Your task to perform on an android device: find photos in the google photos app Image 0: 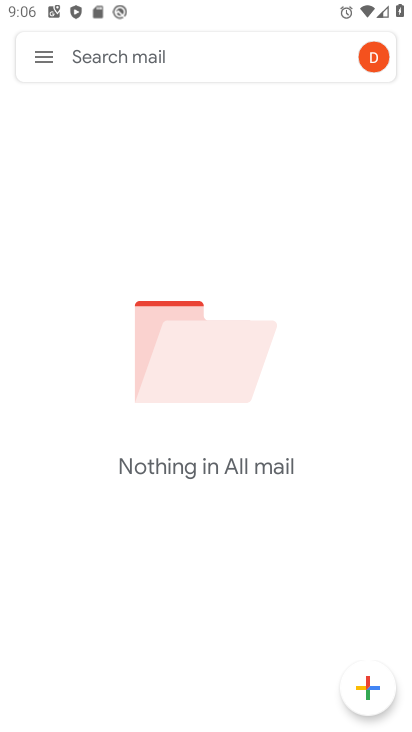
Step 0: press home button
Your task to perform on an android device: find photos in the google photos app Image 1: 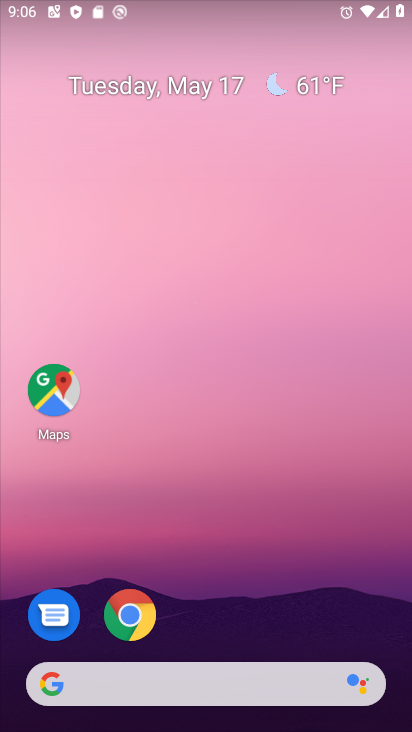
Step 1: drag from (201, 603) to (252, 0)
Your task to perform on an android device: find photos in the google photos app Image 2: 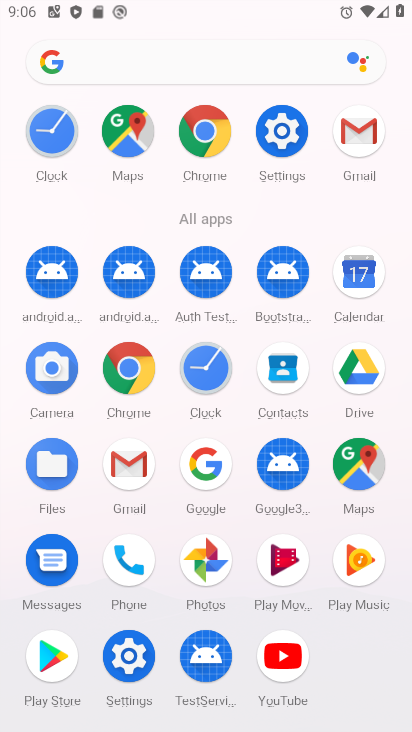
Step 2: click (200, 553)
Your task to perform on an android device: find photos in the google photos app Image 3: 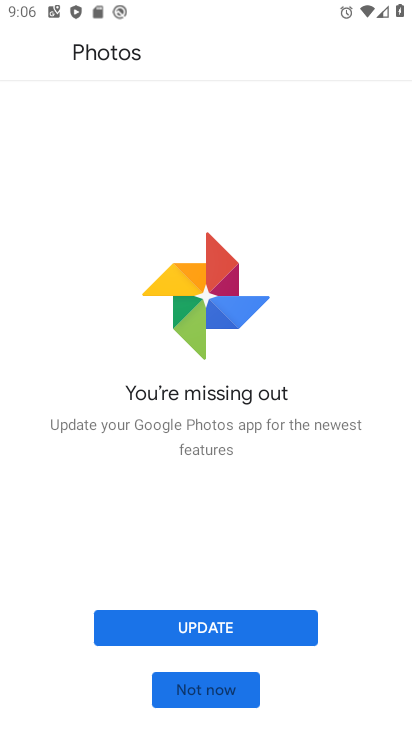
Step 3: click (219, 705)
Your task to perform on an android device: find photos in the google photos app Image 4: 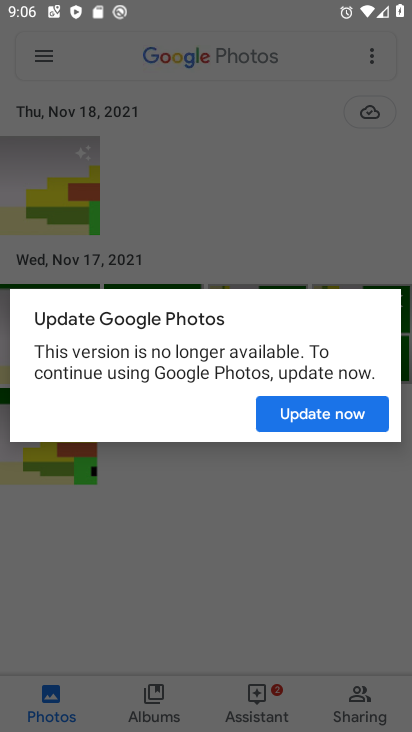
Step 4: click (355, 409)
Your task to perform on an android device: find photos in the google photos app Image 5: 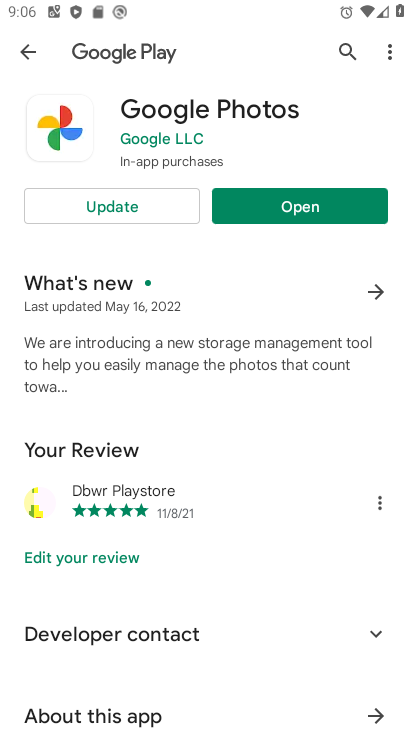
Step 5: click (266, 210)
Your task to perform on an android device: find photos in the google photos app Image 6: 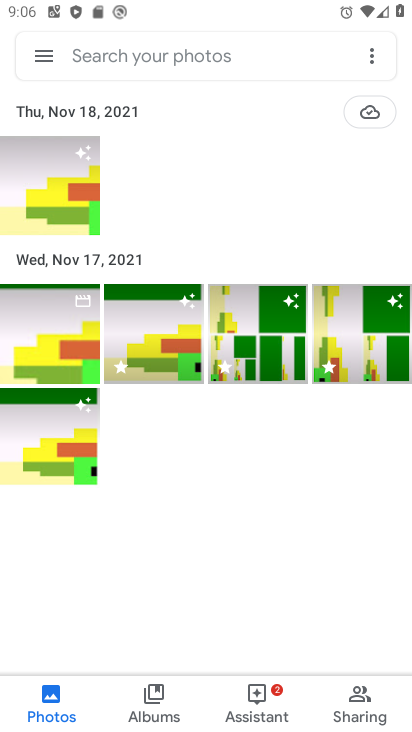
Step 6: task complete